Your task to perform on an android device: Open Wikipedia Image 0: 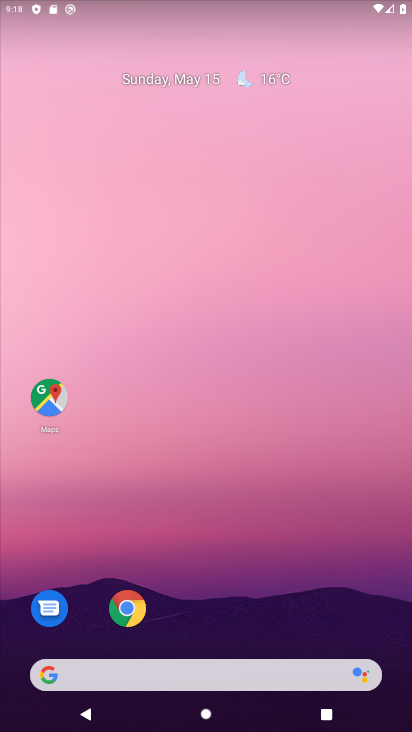
Step 0: drag from (183, 649) to (102, 37)
Your task to perform on an android device: Open Wikipedia Image 1: 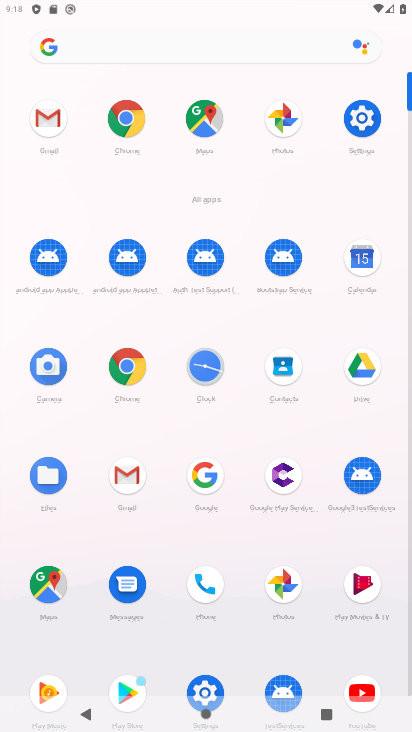
Step 1: click (122, 364)
Your task to perform on an android device: Open Wikipedia Image 2: 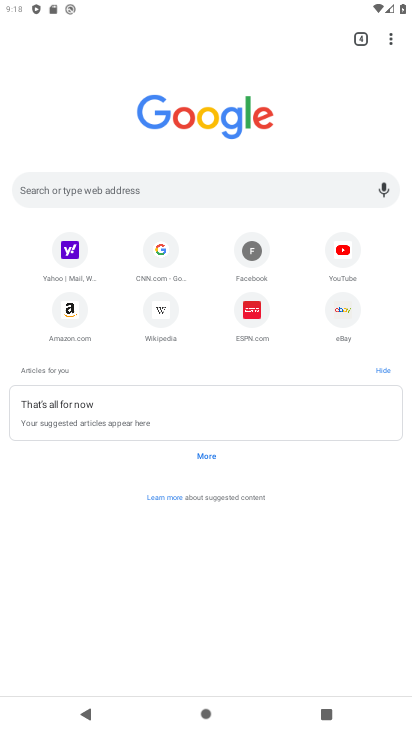
Step 2: click (152, 323)
Your task to perform on an android device: Open Wikipedia Image 3: 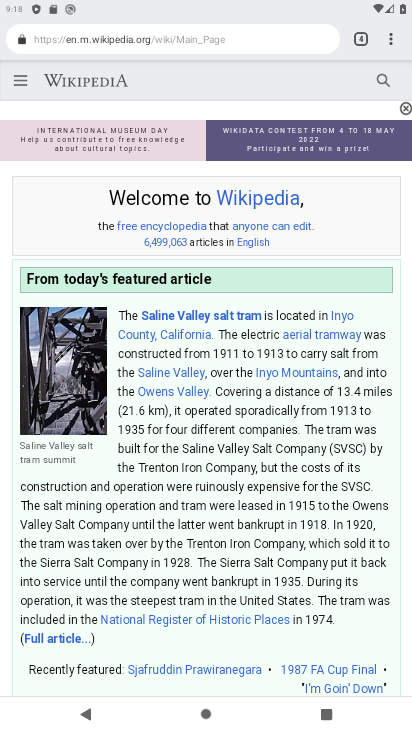
Step 3: task complete